Your task to perform on an android device: Open the Play Movies app and select the watchlist tab. Image 0: 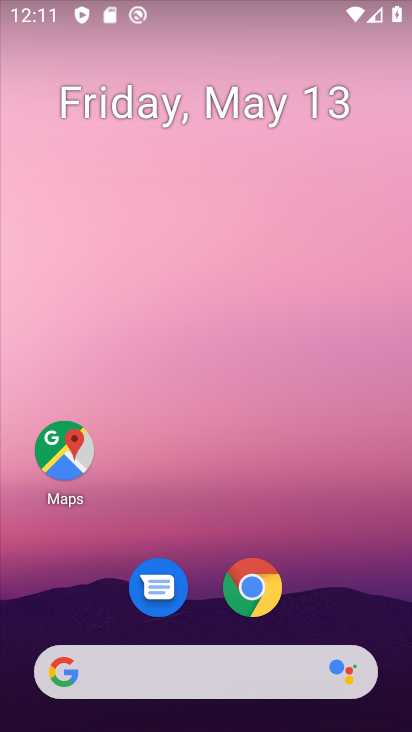
Step 0: drag from (177, 625) to (264, 143)
Your task to perform on an android device: Open the Play Movies app and select the watchlist tab. Image 1: 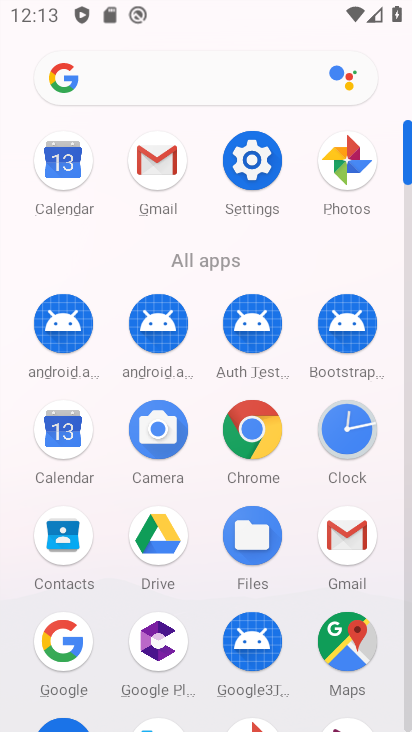
Step 1: drag from (253, 602) to (365, 74)
Your task to perform on an android device: Open the Play Movies app and select the watchlist tab. Image 2: 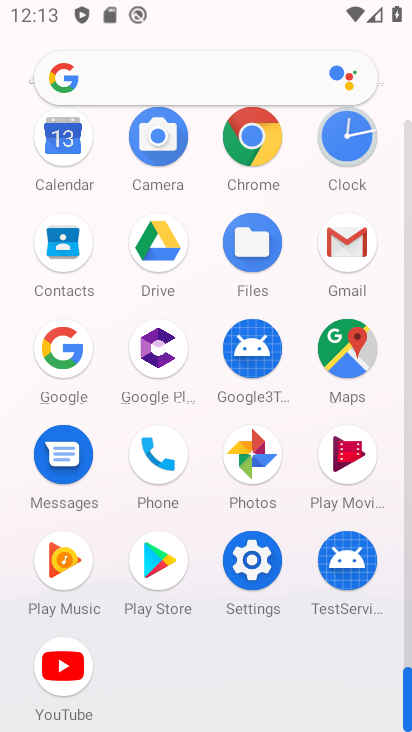
Step 2: click (350, 460)
Your task to perform on an android device: Open the Play Movies app and select the watchlist tab. Image 3: 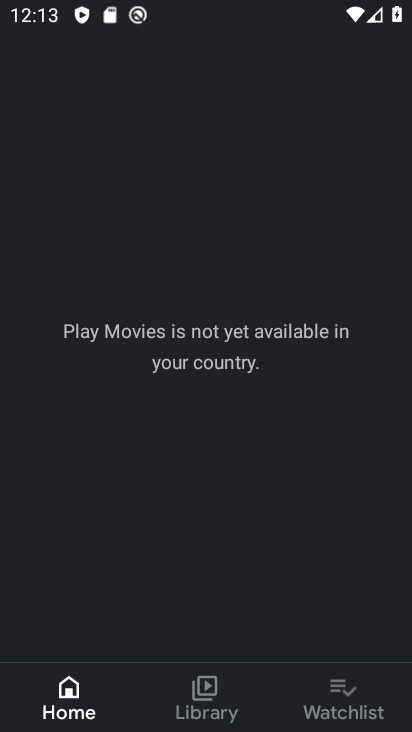
Step 3: click (347, 706)
Your task to perform on an android device: Open the Play Movies app and select the watchlist tab. Image 4: 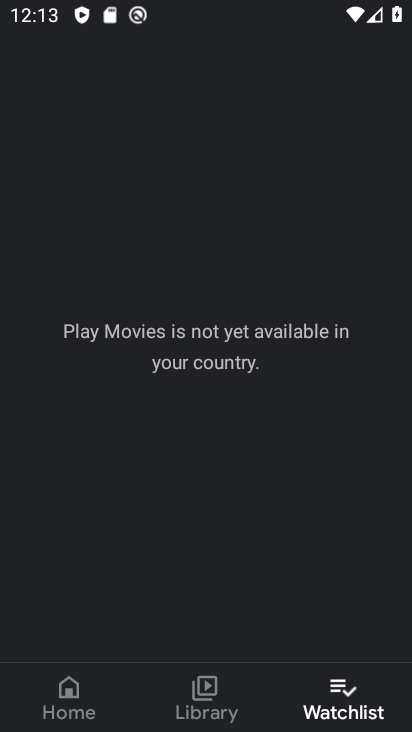
Step 4: task complete